Your task to perform on an android device: Open my contact list Image 0: 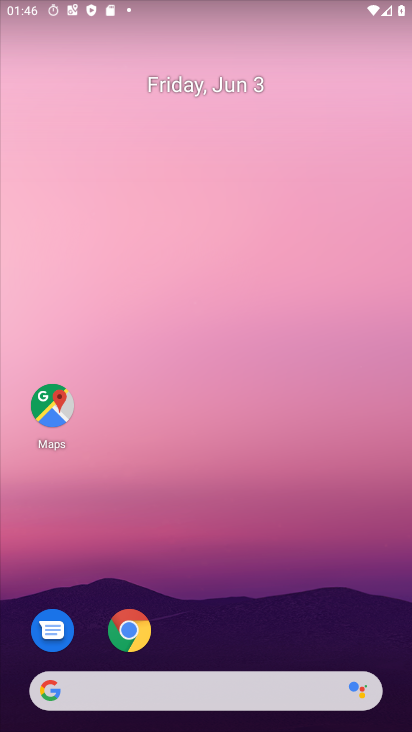
Step 0: drag from (228, 651) to (147, 143)
Your task to perform on an android device: Open my contact list Image 1: 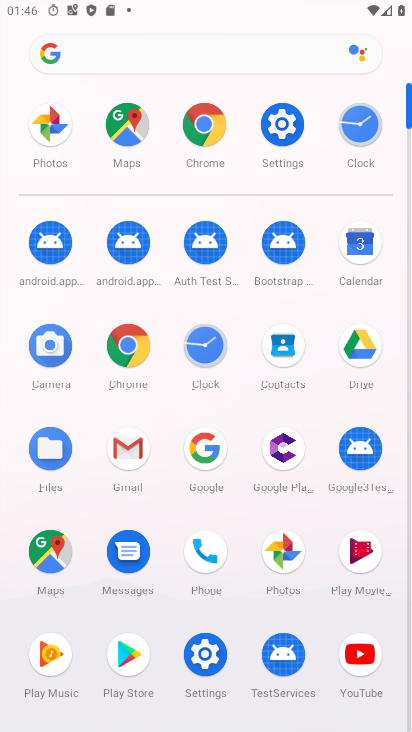
Step 1: click (285, 340)
Your task to perform on an android device: Open my contact list Image 2: 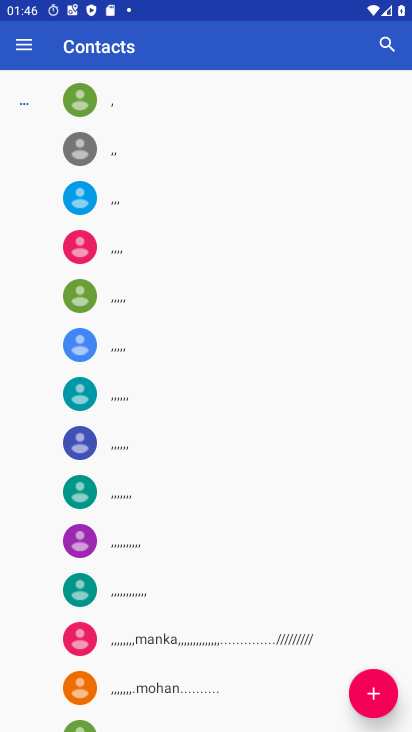
Step 2: task complete